Your task to perform on an android device: toggle pop-ups in chrome Image 0: 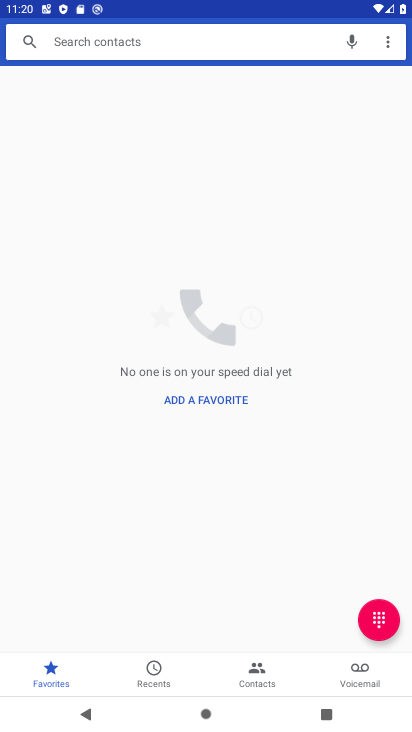
Step 0: press home button
Your task to perform on an android device: toggle pop-ups in chrome Image 1: 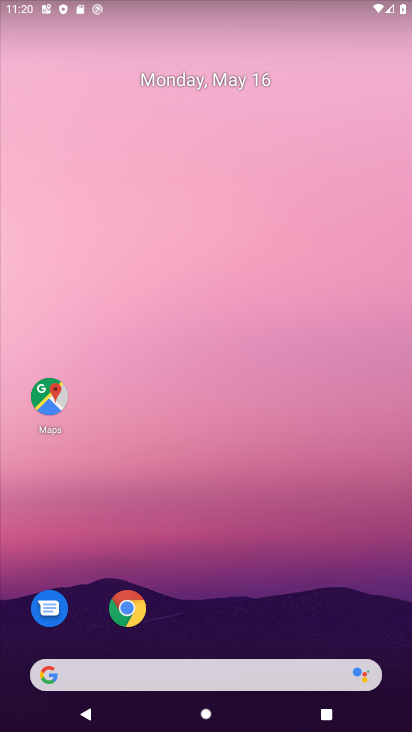
Step 1: click (129, 615)
Your task to perform on an android device: toggle pop-ups in chrome Image 2: 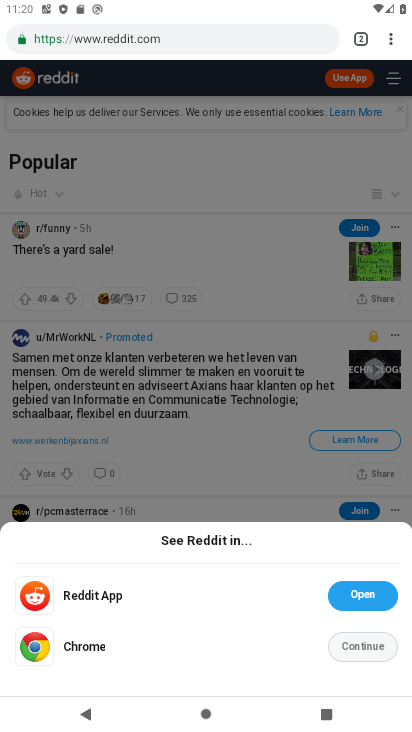
Step 2: drag from (389, 39) to (291, 474)
Your task to perform on an android device: toggle pop-ups in chrome Image 3: 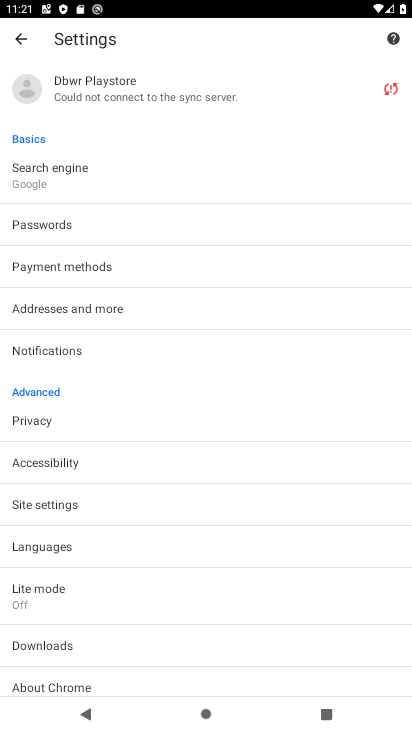
Step 3: click (72, 503)
Your task to perform on an android device: toggle pop-ups in chrome Image 4: 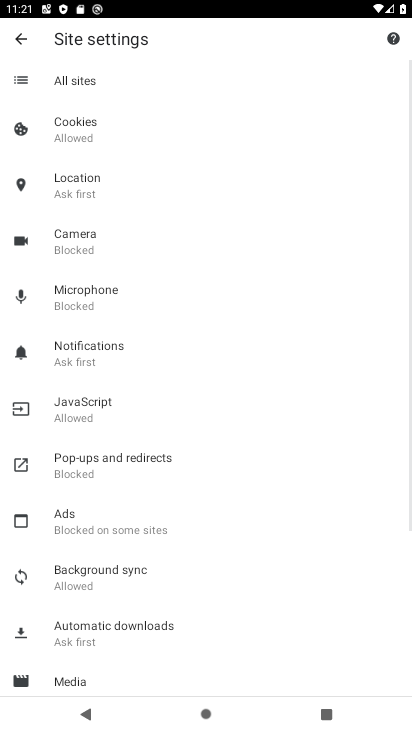
Step 4: click (117, 465)
Your task to perform on an android device: toggle pop-ups in chrome Image 5: 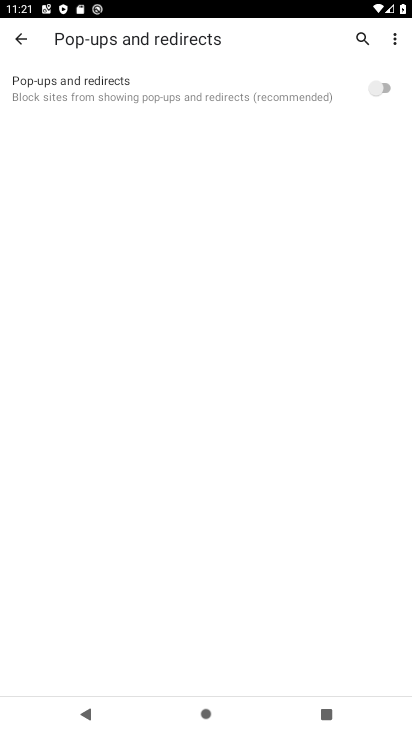
Step 5: click (386, 83)
Your task to perform on an android device: toggle pop-ups in chrome Image 6: 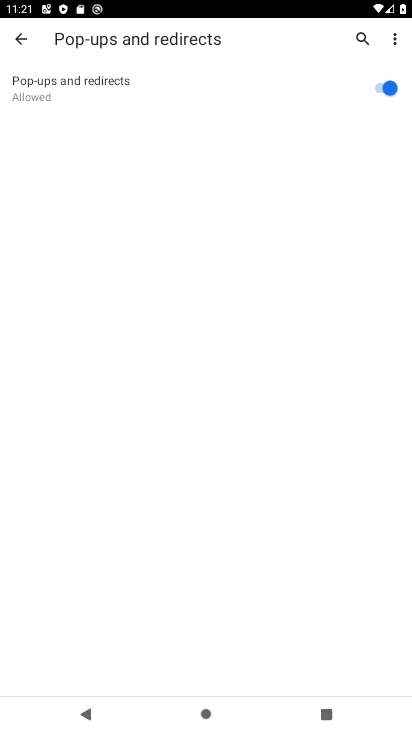
Step 6: task complete